Your task to perform on an android device: turn vacation reply on in the gmail app Image 0: 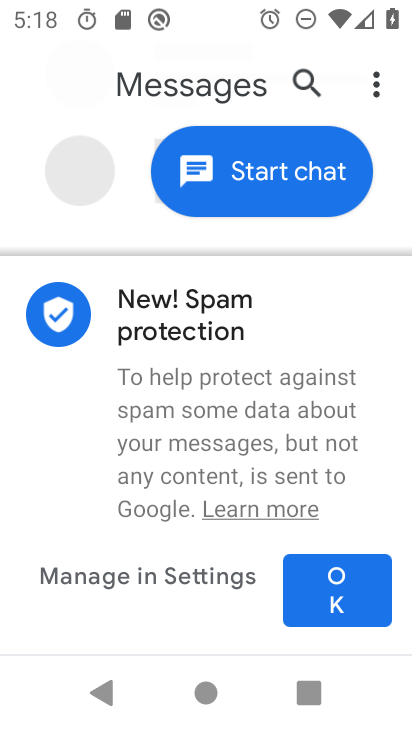
Step 0: press home button
Your task to perform on an android device: turn vacation reply on in the gmail app Image 1: 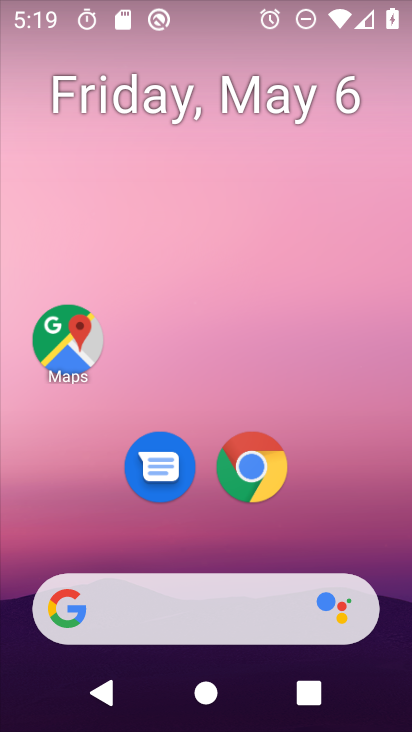
Step 1: drag from (346, 530) to (302, 92)
Your task to perform on an android device: turn vacation reply on in the gmail app Image 2: 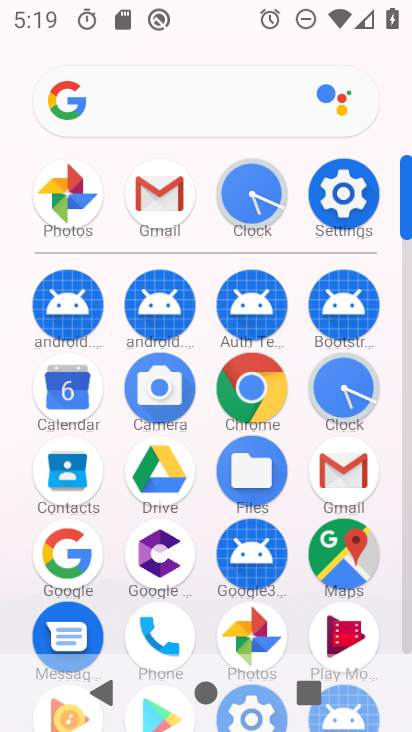
Step 2: click (336, 466)
Your task to perform on an android device: turn vacation reply on in the gmail app Image 3: 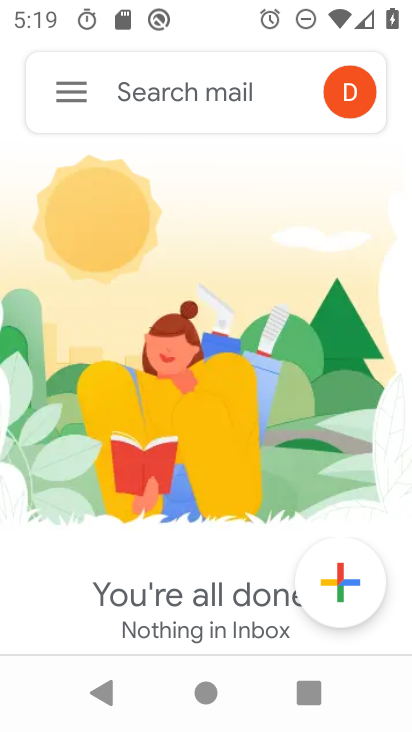
Step 3: click (72, 97)
Your task to perform on an android device: turn vacation reply on in the gmail app Image 4: 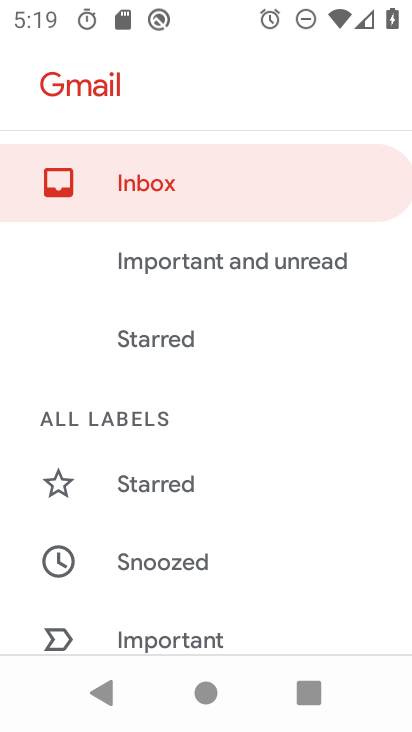
Step 4: drag from (156, 545) to (204, 245)
Your task to perform on an android device: turn vacation reply on in the gmail app Image 5: 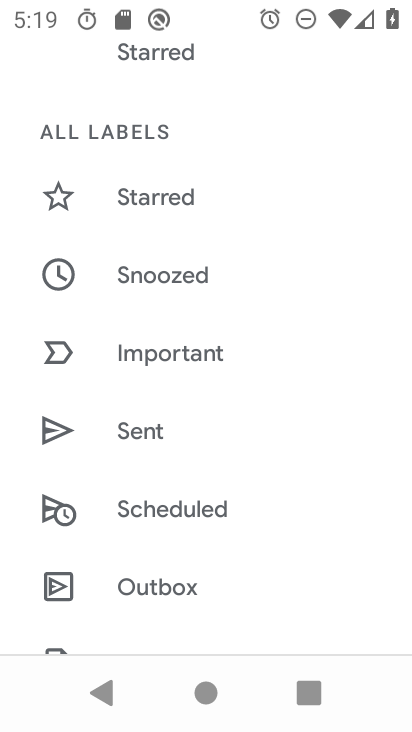
Step 5: drag from (184, 572) to (238, 213)
Your task to perform on an android device: turn vacation reply on in the gmail app Image 6: 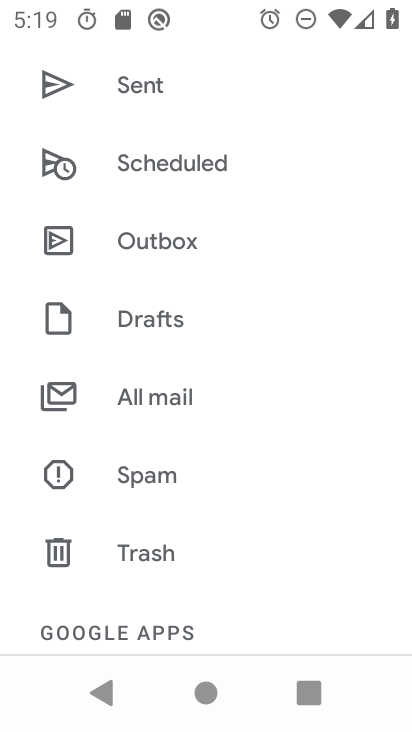
Step 6: drag from (147, 555) to (260, 178)
Your task to perform on an android device: turn vacation reply on in the gmail app Image 7: 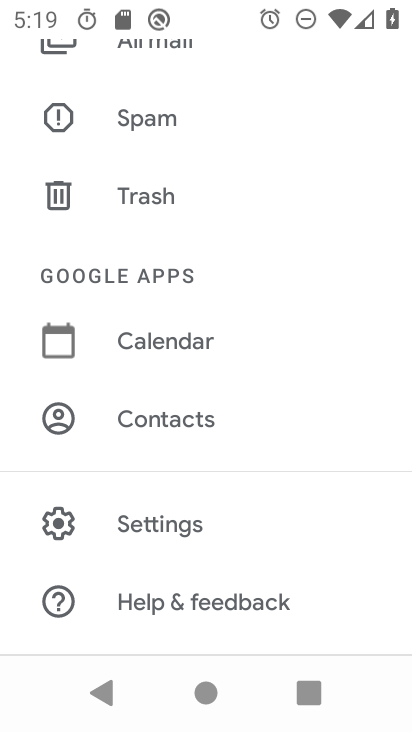
Step 7: click (174, 528)
Your task to perform on an android device: turn vacation reply on in the gmail app Image 8: 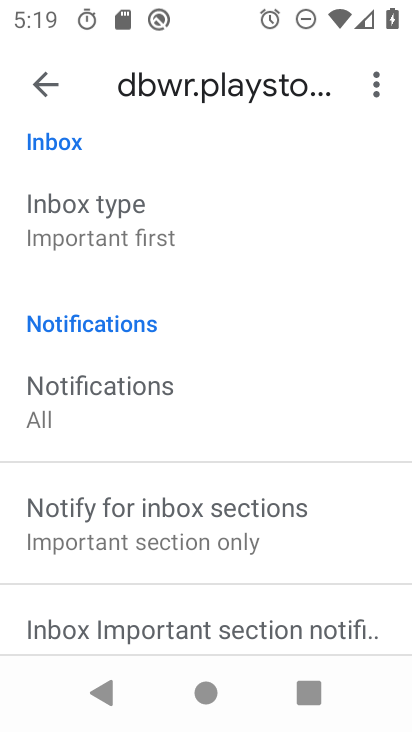
Step 8: drag from (217, 571) to (209, 235)
Your task to perform on an android device: turn vacation reply on in the gmail app Image 9: 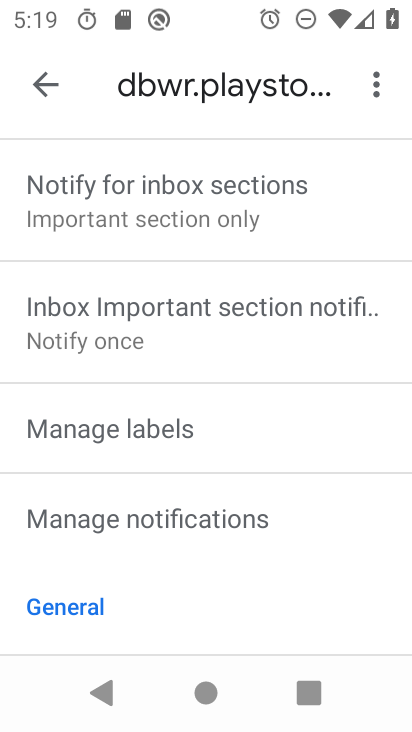
Step 9: drag from (171, 316) to (152, 242)
Your task to perform on an android device: turn vacation reply on in the gmail app Image 10: 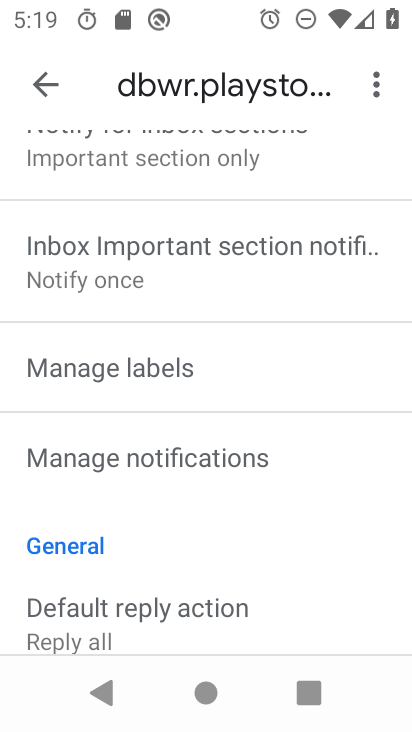
Step 10: drag from (170, 548) to (242, 313)
Your task to perform on an android device: turn vacation reply on in the gmail app Image 11: 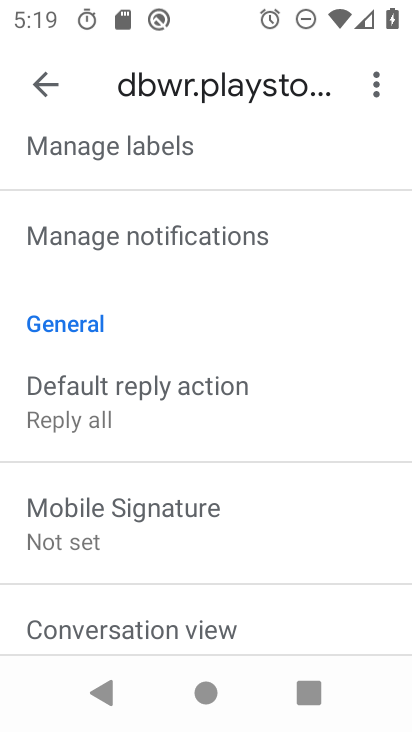
Step 11: drag from (233, 553) to (244, 284)
Your task to perform on an android device: turn vacation reply on in the gmail app Image 12: 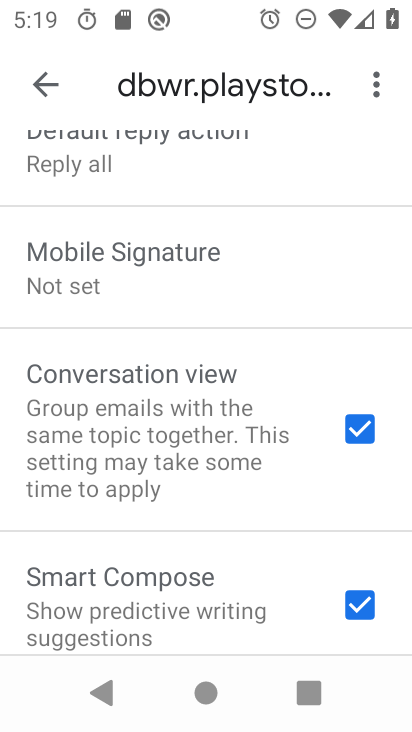
Step 12: drag from (230, 552) to (230, 328)
Your task to perform on an android device: turn vacation reply on in the gmail app Image 13: 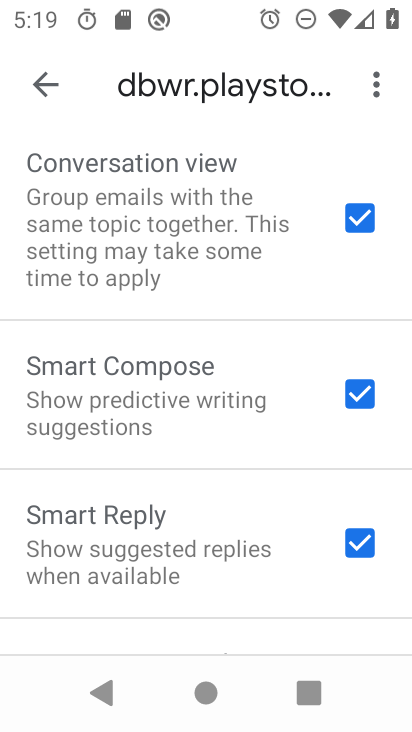
Step 13: drag from (214, 546) to (226, 254)
Your task to perform on an android device: turn vacation reply on in the gmail app Image 14: 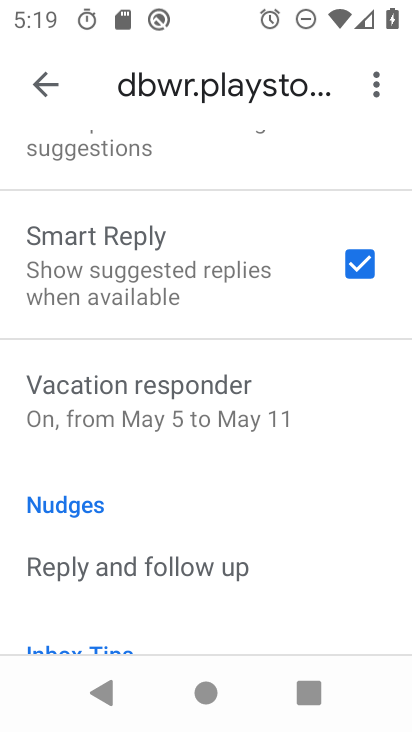
Step 14: click (201, 426)
Your task to perform on an android device: turn vacation reply on in the gmail app Image 15: 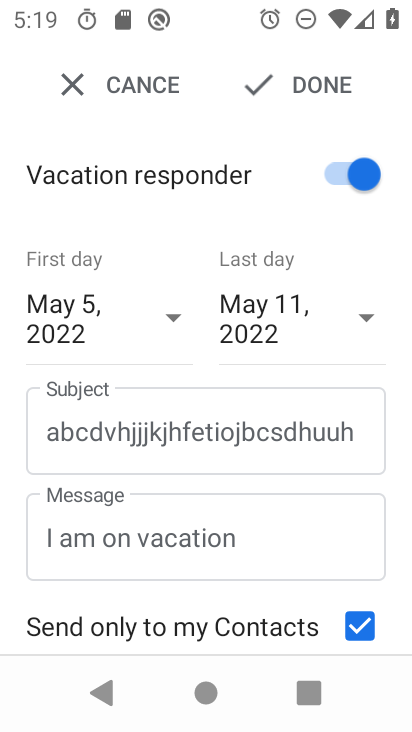
Step 15: task complete